Your task to perform on an android device: Open Google Maps Image 0: 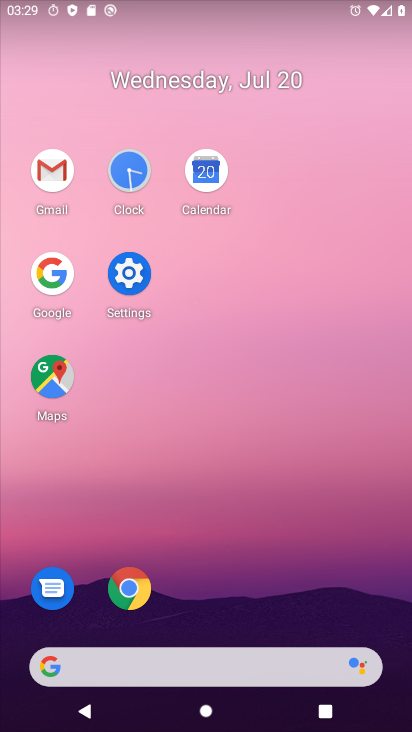
Step 0: click (46, 390)
Your task to perform on an android device: Open Google Maps Image 1: 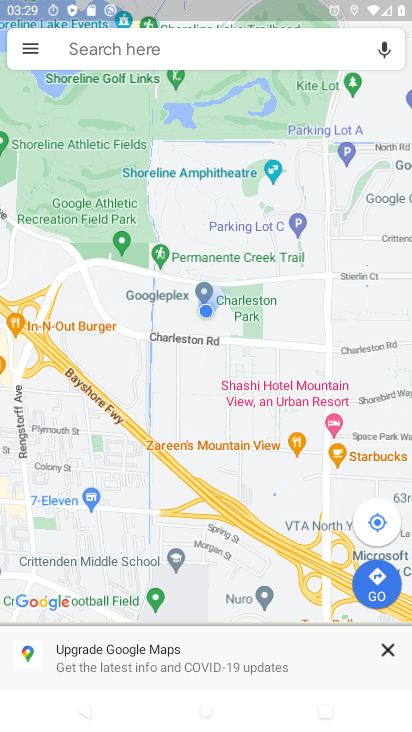
Step 1: task complete